Your task to perform on an android device: Open network settings Image 0: 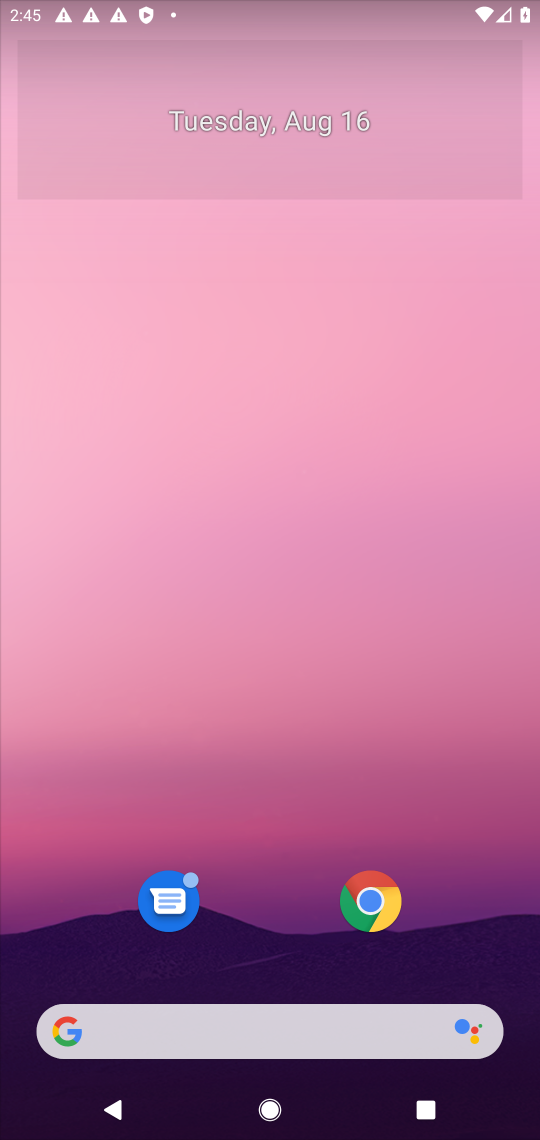
Step 0: drag from (241, 435) to (304, 91)
Your task to perform on an android device: Open network settings Image 1: 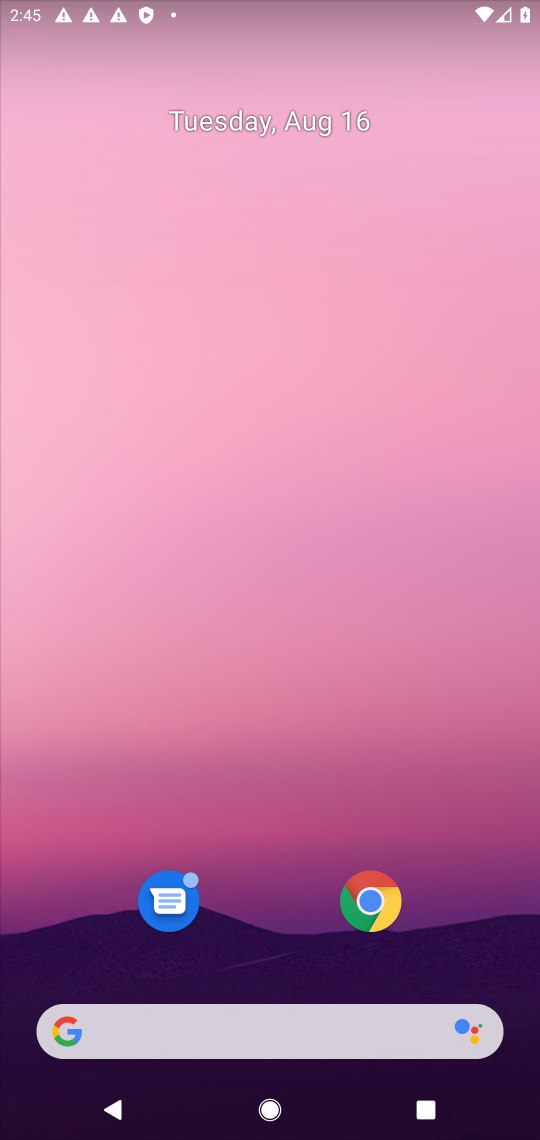
Step 1: drag from (261, 701) to (245, 0)
Your task to perform on an android device: Open network settings Image 2: 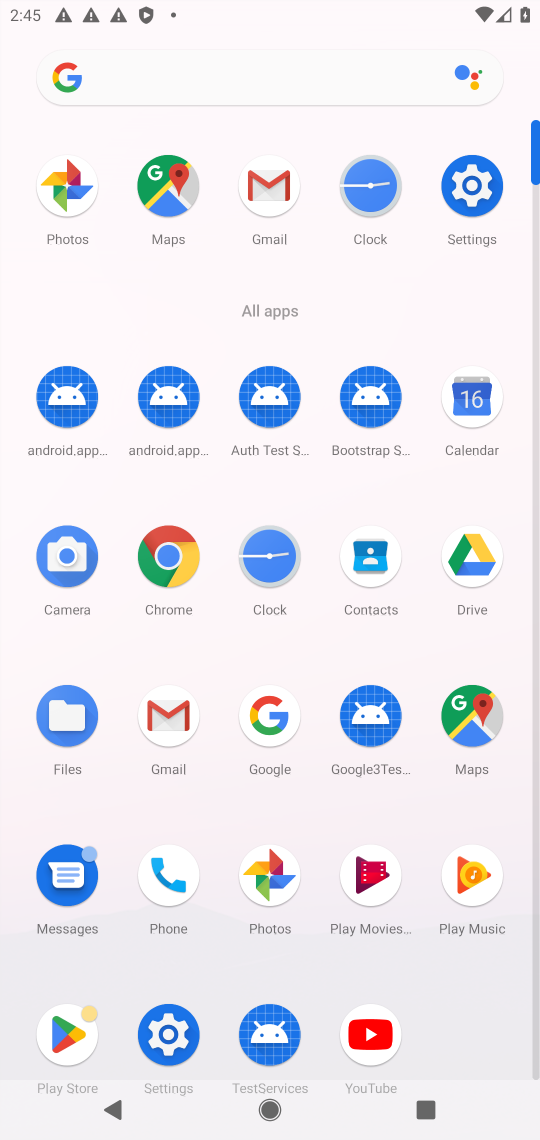
Step 2: click (467, 202)
Your task to perform on an android device: Open network settings Image 3: 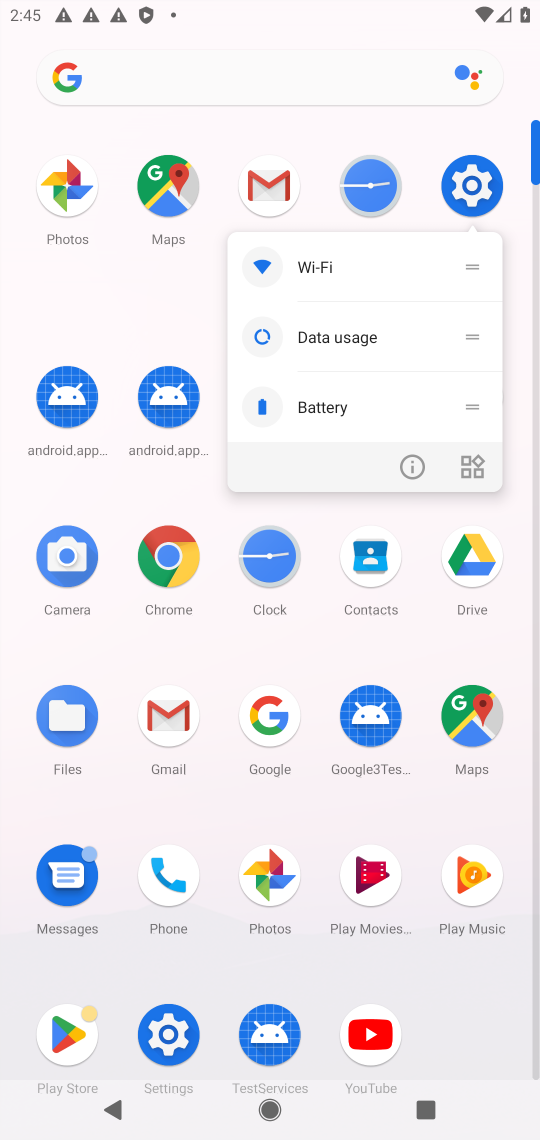
Step 3: click (472, 192)
Your task to perform on an android device: Open network settings Image 4: 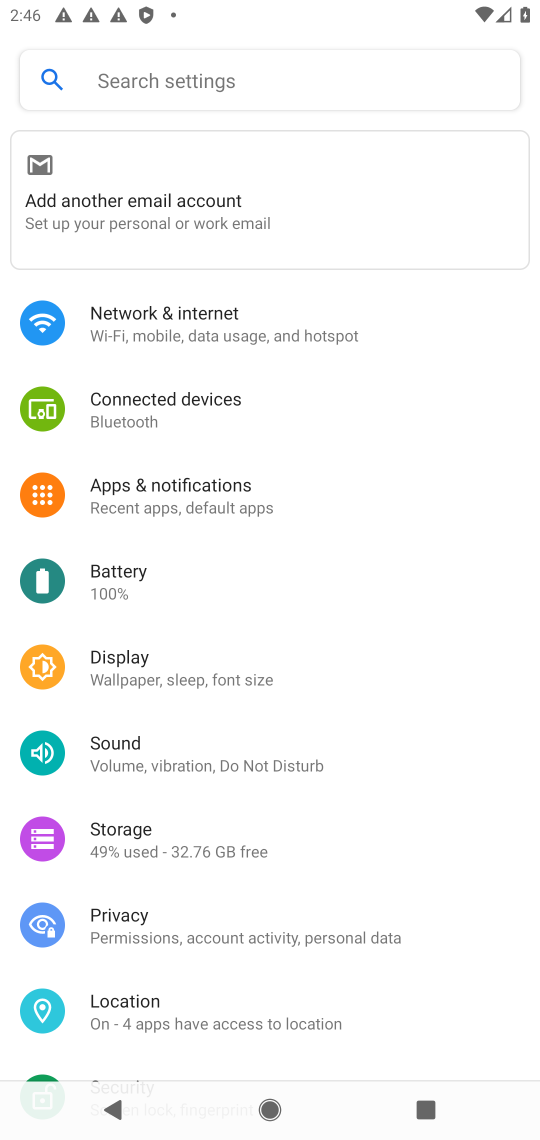
Step 4: click (209, 318)
Your task to perform on an android device: Open network settings Image 5: 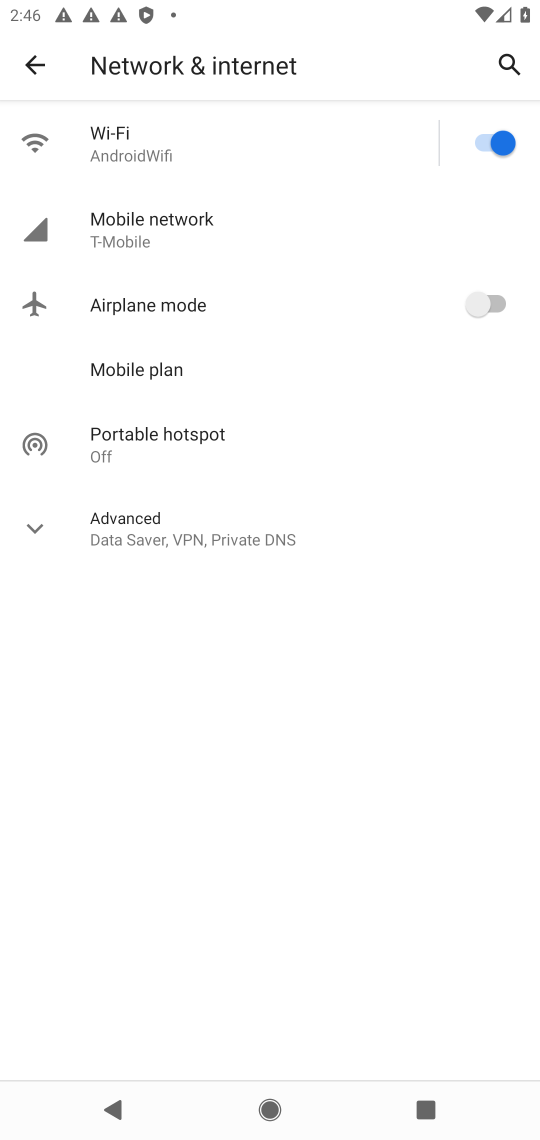
Step 5: task complete